Your task to perform on an android device: open device folders in google photos Image 0: 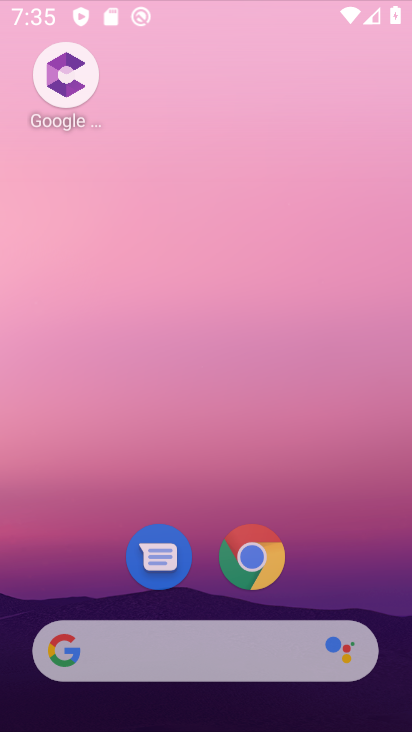
Step 0: press home button
Your task to perform on an android device: open device folders in google photos Image 1: 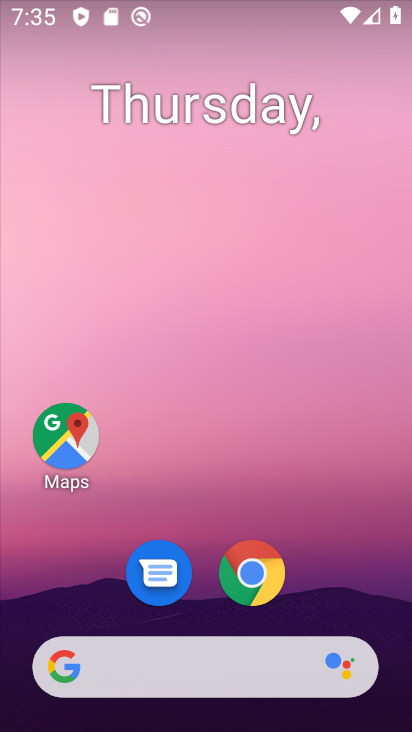
Step 1: drag from (361, 549) to (348, 102)
Your task to perform on an android device: open device folders in google photos Image 2: 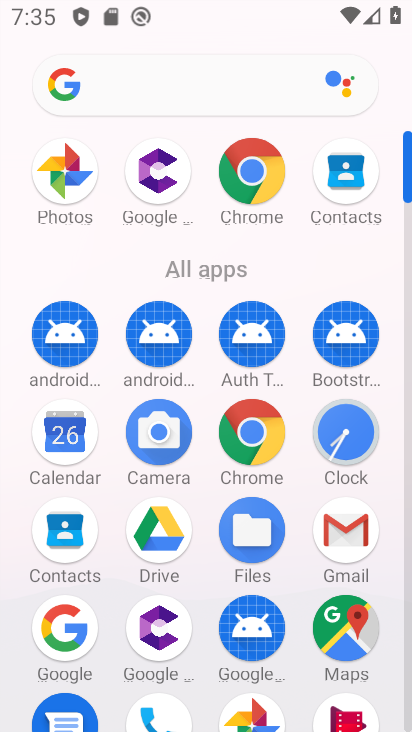
Step 2: drag from (322, 578) to (315, 255)
Your task to perform on an android device: open device folders in google photos Image 3: 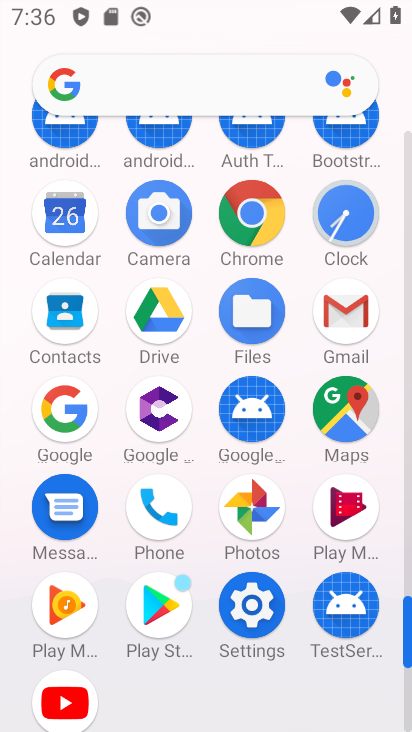
Step 3: click (264, 530)
Your task to perform on an android device: open device folders in google photos Image 4: 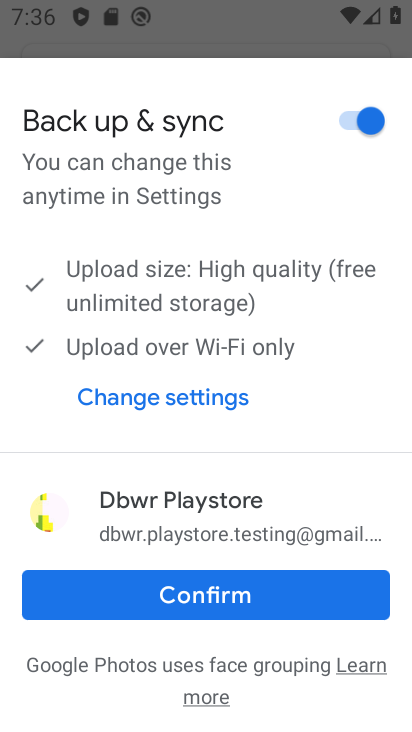
Step 4: click (300, 587)
Your task to perform on an android device: open device folders in google photos Image 5: 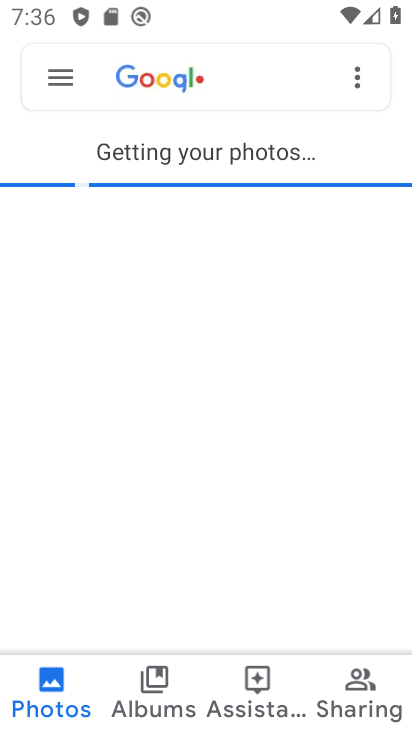
Step 5: click (46, 69)
Your task to perform on an android device: open device folders in google photos Image 6: 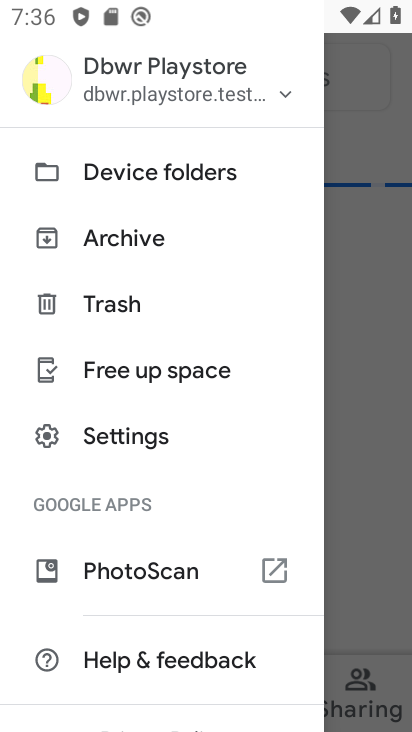
Step 6: click (171, 179)
Your task to perform on an android device: open device folders in google photos Image 7: 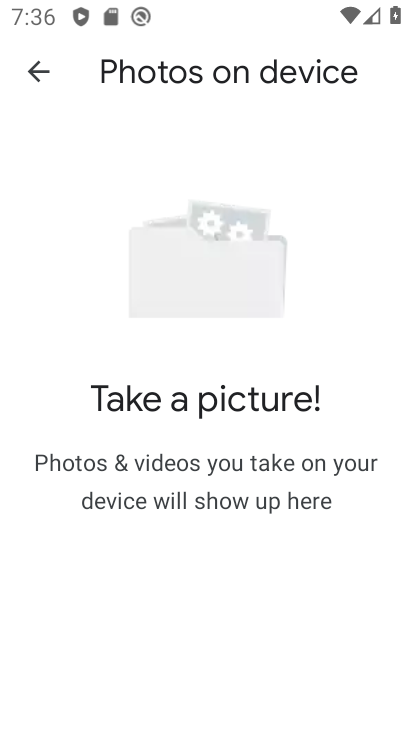
Step 7: task complete